Your task to perform on an android device: turn on notifications settings in the gmail app Image 0: 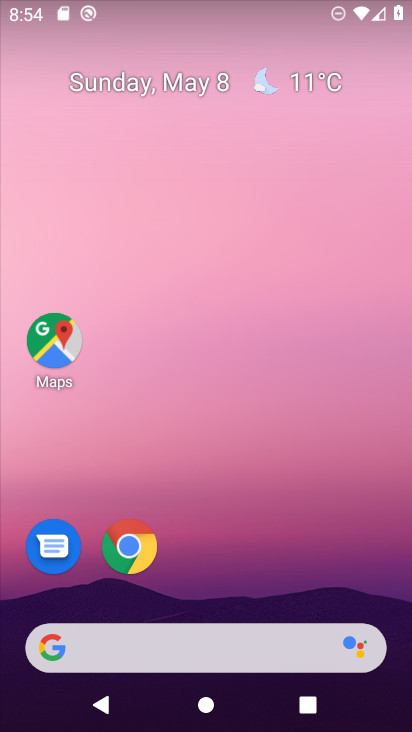
Step 0: drag from (265, 530) to (211, 14)
Your task to perform on an android device: turn on notifications settings in the gmail app Image 1: 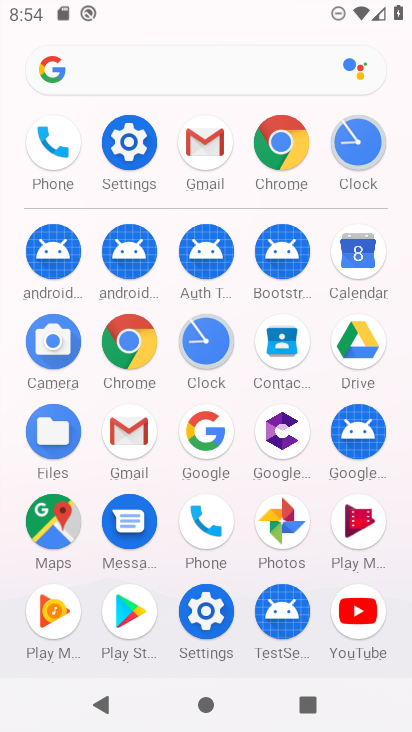
Step 1: click (202, 138)
Your task to perform on an android device: turn on notifications settings in the gmail app Image 2: 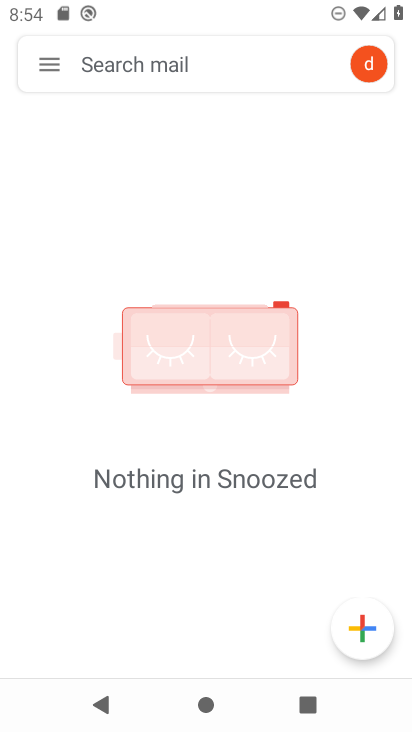
Step 2: click (45, 58)
Your task to perform on an android device: turn on notifications settings in the gmail app Image 3: 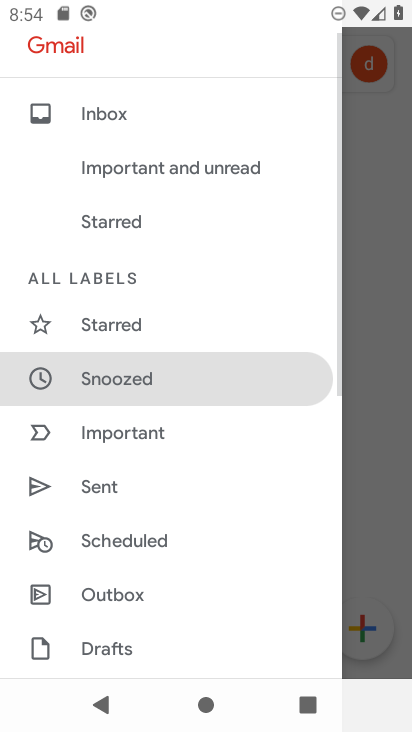
Step 3: drag from (179, 569) to (221, 43)
Your task to perform on an android device: turn on notifications settings in the gmail app Image 4: 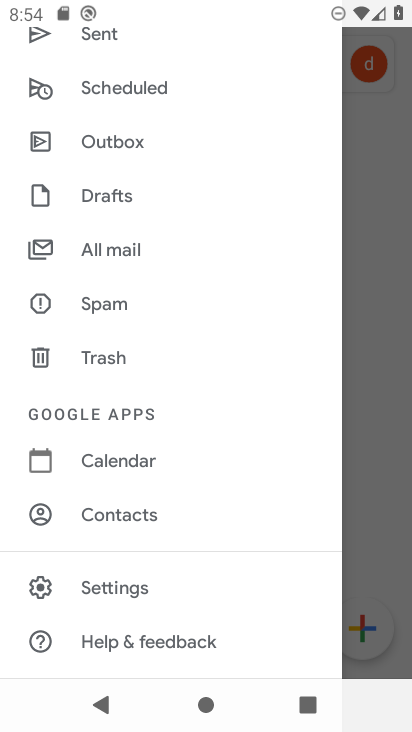
Step 4: click (101, 587)
Your task to perform on an android device: turn on notifications settings in the gmail app Image 5: 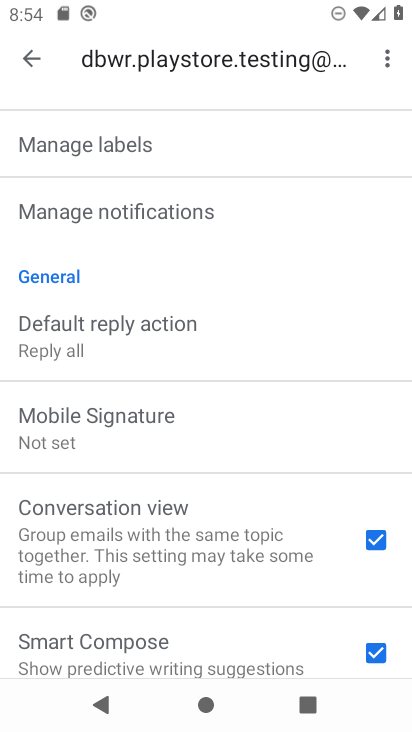
Step 5: click (237, 207)
Your task to perform on an android device: turn on notifications settings in the gmail app Image 6: 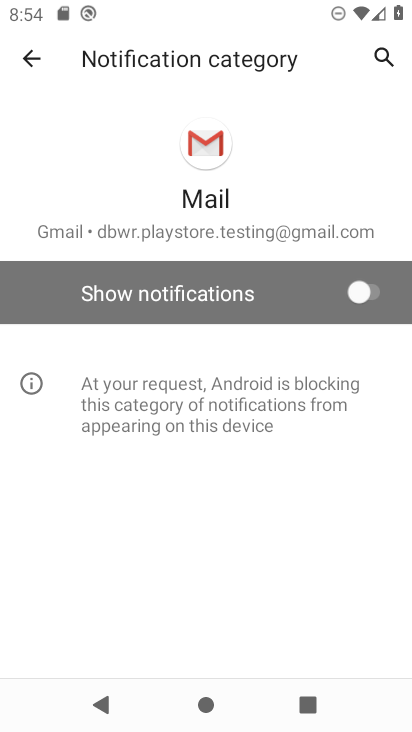
Step 6: click (366, 293)
Your task to perform on an android device: turn on notifications settings in the gmail app Image 7: 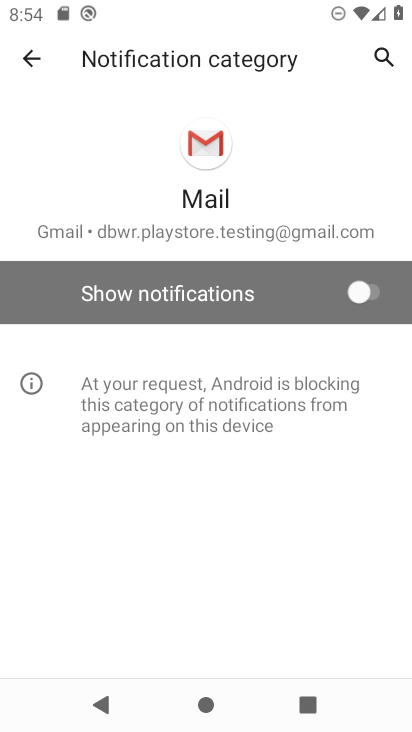
Step 7: click (358, 286)
Your task to perform on an android device: turn on notifications settings in the gmail app Image 8: 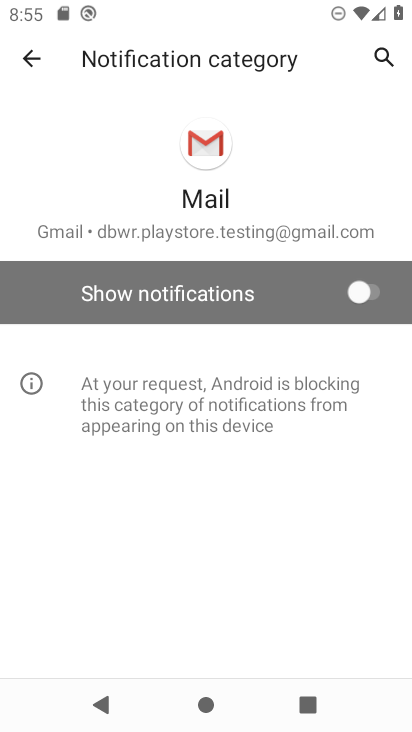
Step 8: click (26, 54)
Your task to perform on an android device: turn on notifications settings in the gmail app Image 9: 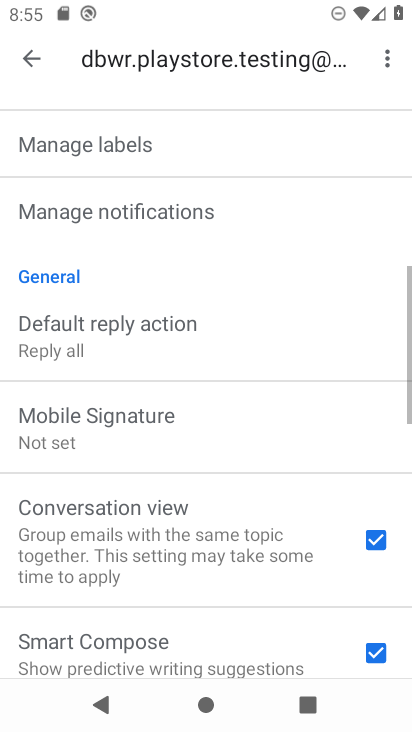
Step 9: click (32, 46)
Your task to perform on an android device: turn on notifications settings in the gmail app Image 10: 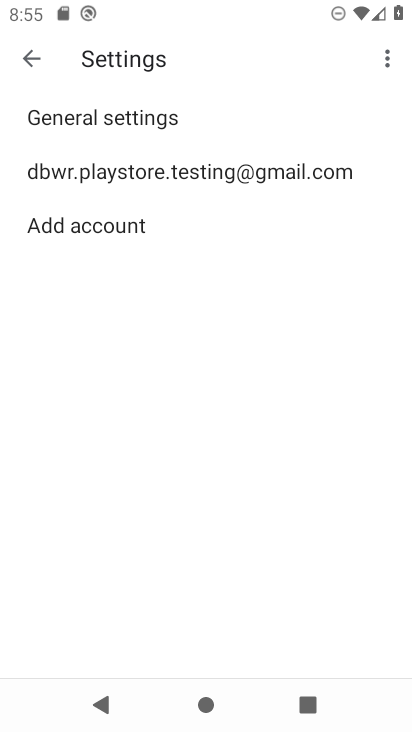
Step 10: click (113, 118)
Your task to perform on an android device: turn on notifications settings in the gmail app Image 11: 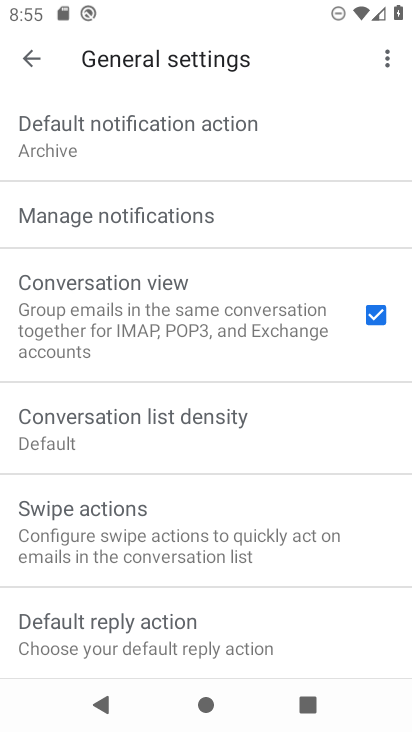
Step 11: click (171, 215)
Your task to perform on an android device: turn on notifications settings in the gmail app Image 12: 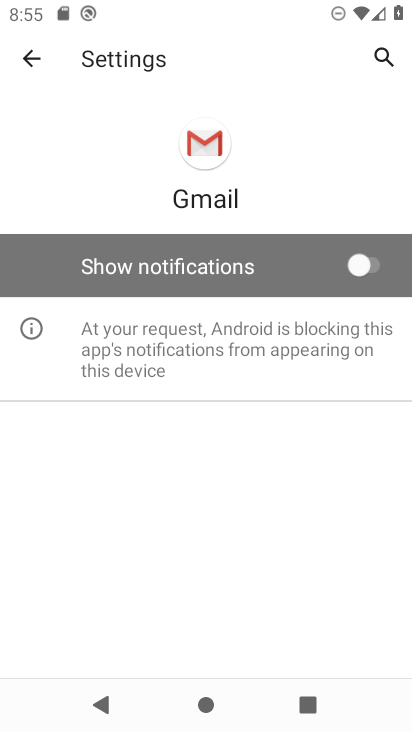
Step 12: click (377, 262)
Your task to perform on an android device: turn on notifications settings in the gmail app Image 13: 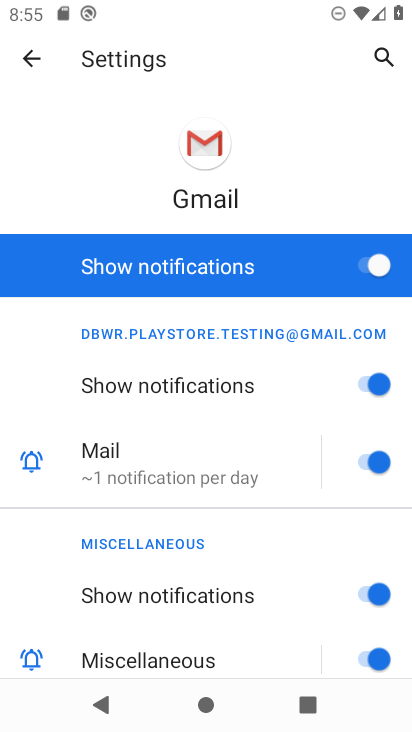
Step 13: task complete